Your task to perform on an android device: open app "HBO Max: Stream TV & Movies" (install if not already installed) Image 0: 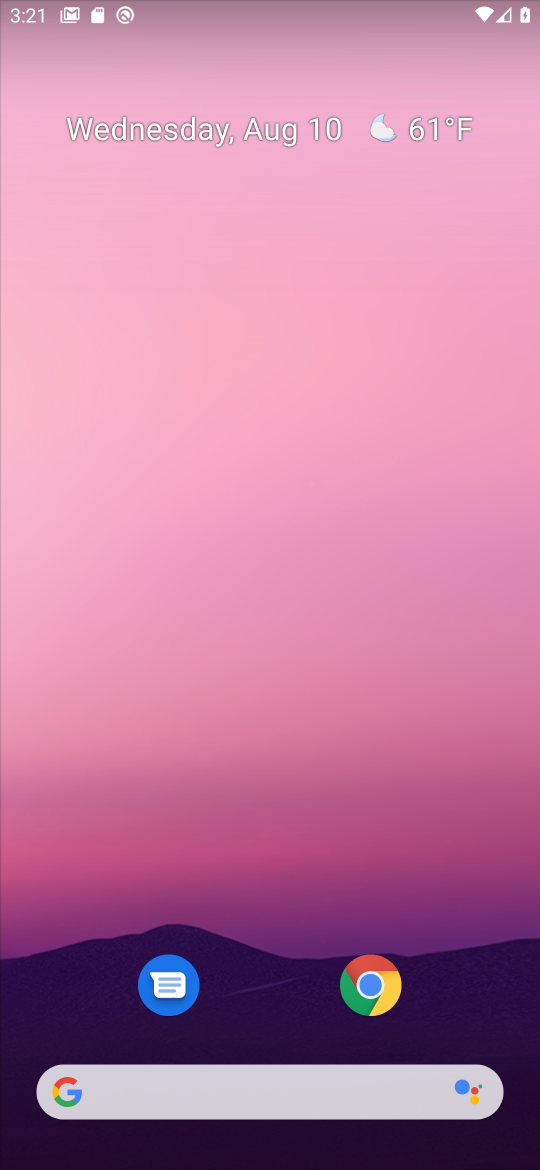
Step 0: drag from (258, 876) to (252, 201)
Your task to perform on an android device: open app "HBO Max: Stream TV & Movies" (install if not already installed) Image 1: 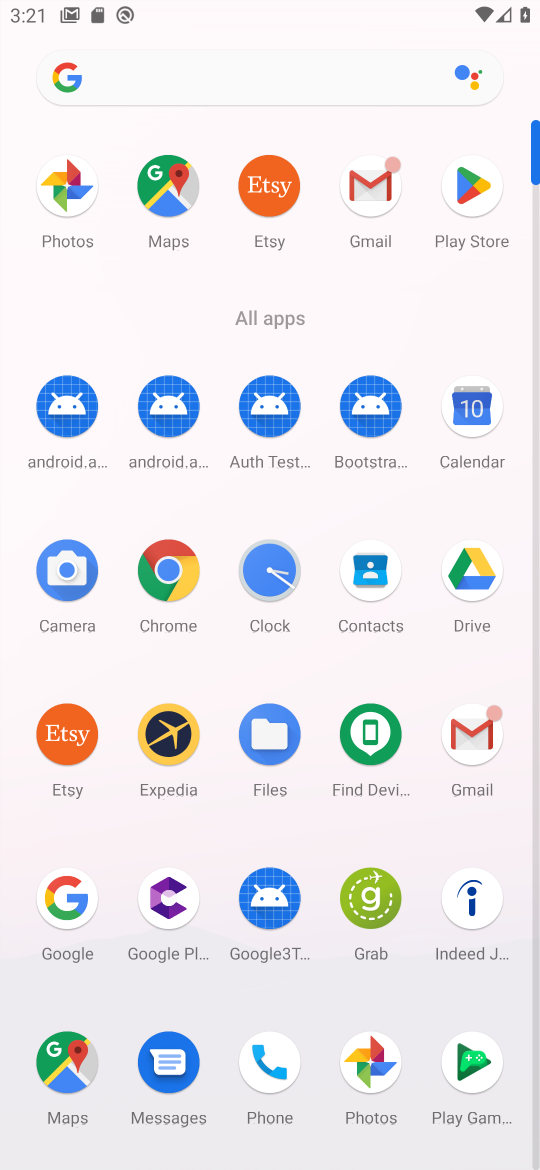
Step 1: click (459, 213)
Your task to perform on an android device: open app "HBO Max: Stream TV & Movies" (install if not already installed) Image 2: 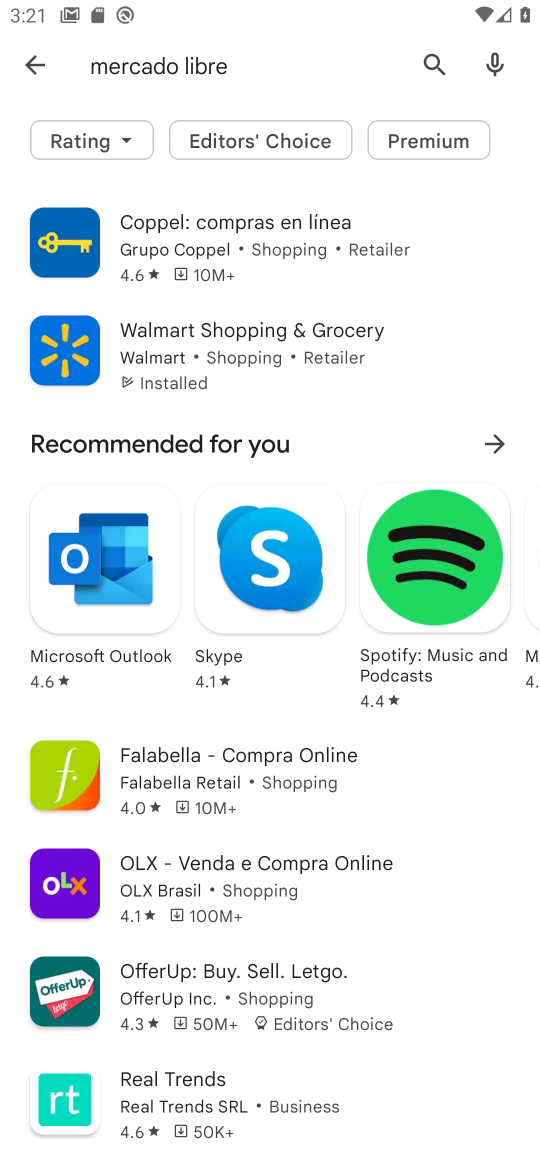
Step 2: click (40, 54)
Your task to perform on an android device: open app "HBO Max: Stream TV & Movies" (install if not already installed) Image 3: 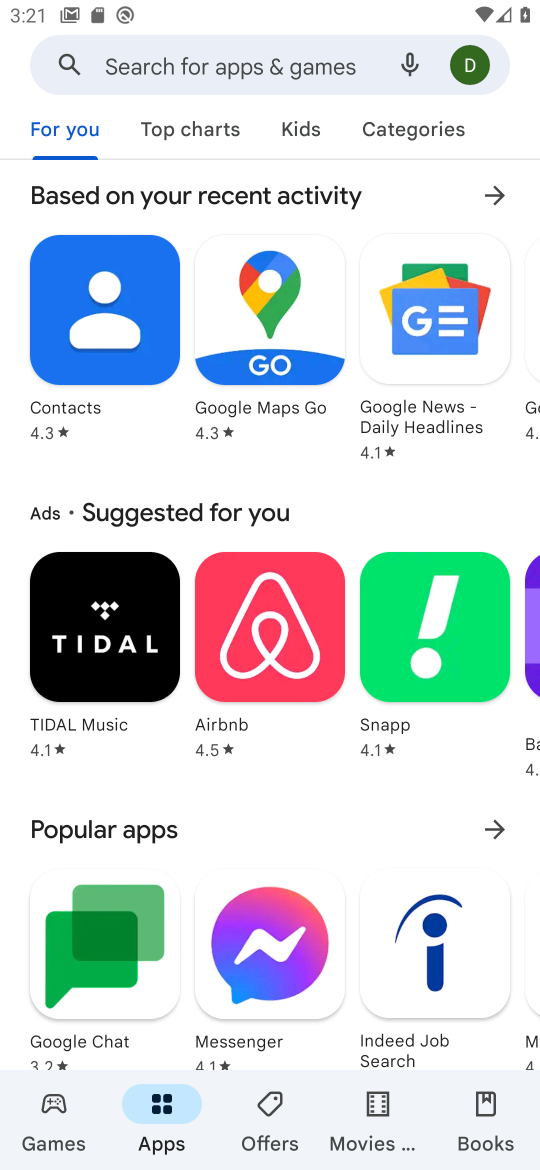
Step 3: click (259, 62)
Your task to perform on an android device: open app "HBO Max: Stream TV & Movies" (install if not already installed) Image 4: 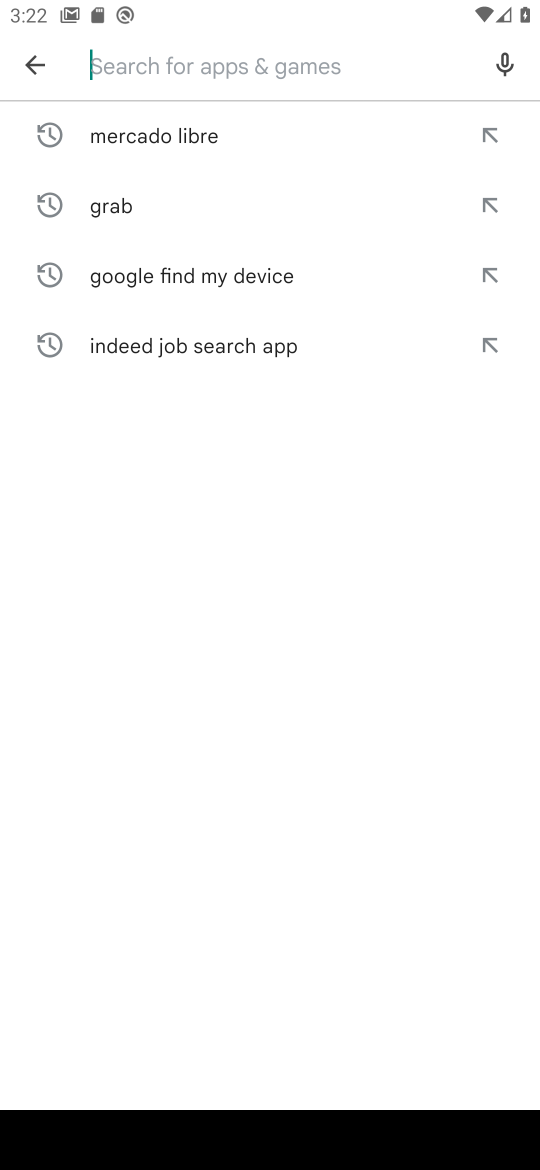
Step 4: type "HBO Max: Stream TV & Movies"
Your task to perform on an android device: open app "HBO Max: Stream TV & Movies" (install if not already installed) Image 5: 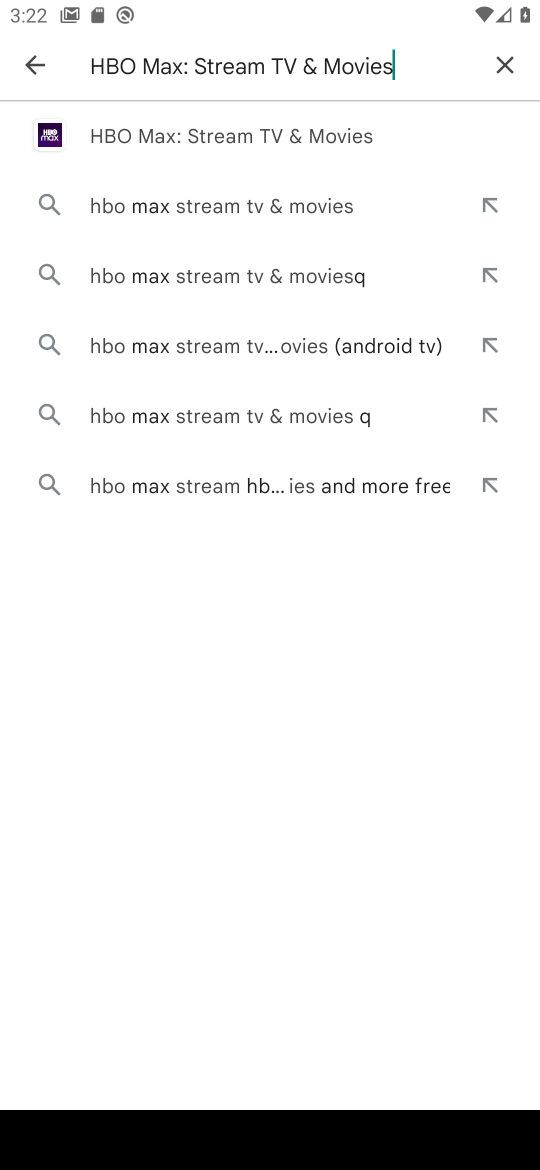
Step 5: click (255, 137)
Your task to perform on an android device: open app "HBO Max: Stream TV & Movies" (install if not already installed) Image 6: 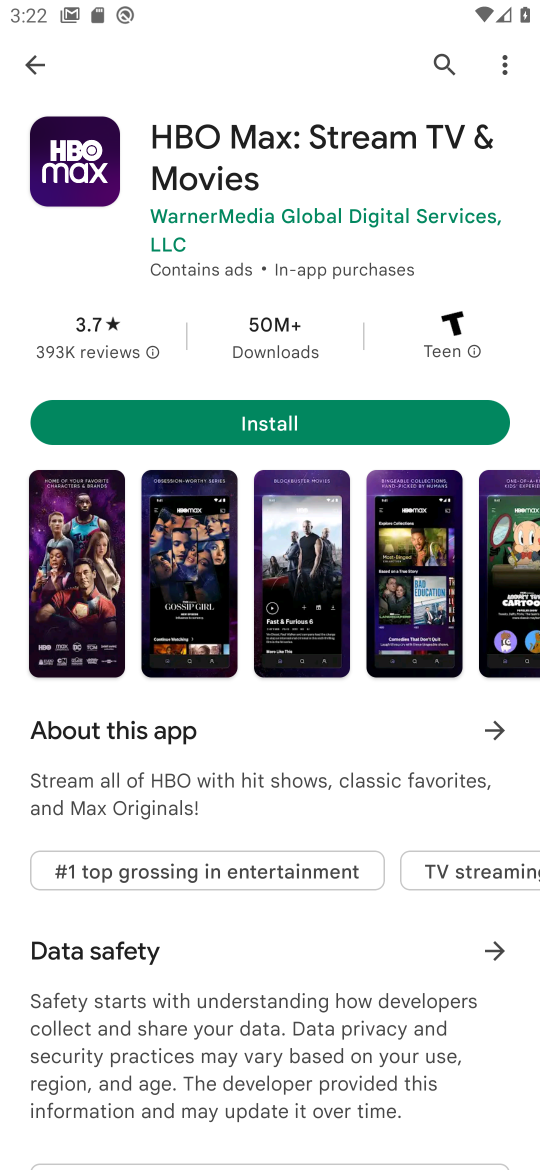
Step 6: click (255, 422)
Your task to perform on an android device: open app "HBO Max: Stream TV & Movies" (install if not already installed) Image 7: 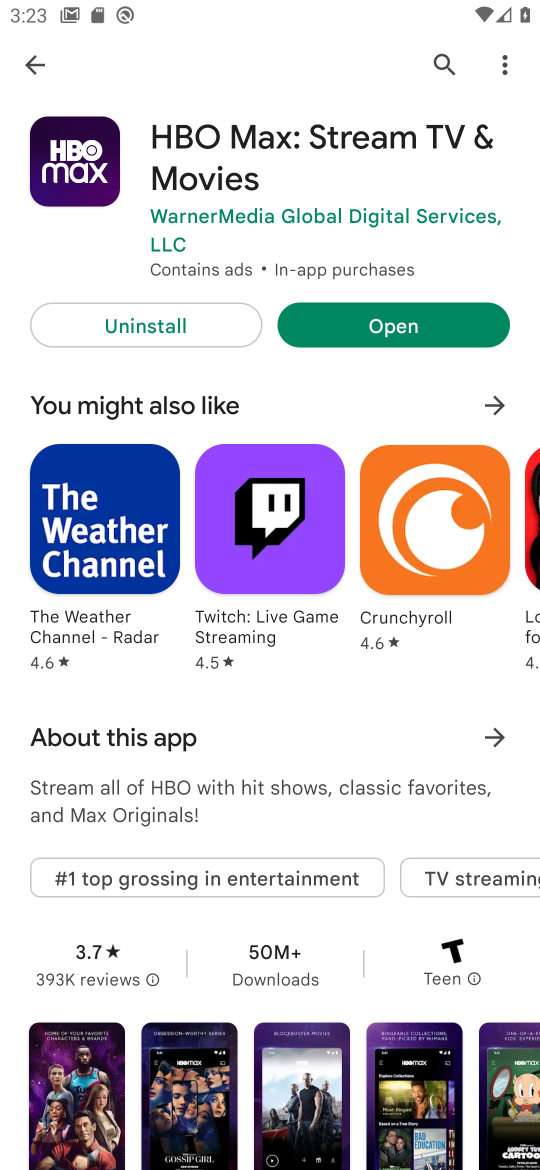
Step 7: click (389, 340)
Your task to perform on an android device: open app "HBO Max: Stream TV & Movies" (install if not already installed) Image 8: 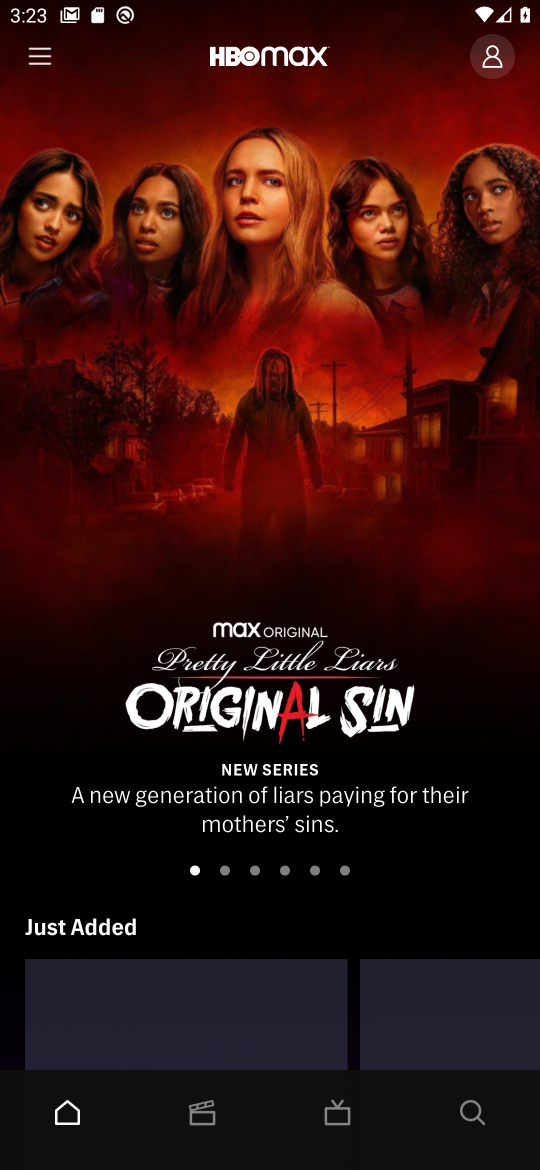
Step 8: task complete